Your task to perform on an android device: Show me recent news Image 0: 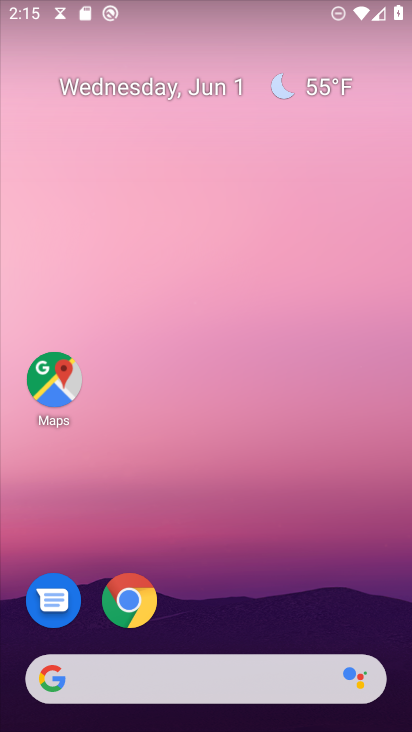
Step 0: click (282, 677)
Your task to perform on an android device: Show me recent news Image 1: 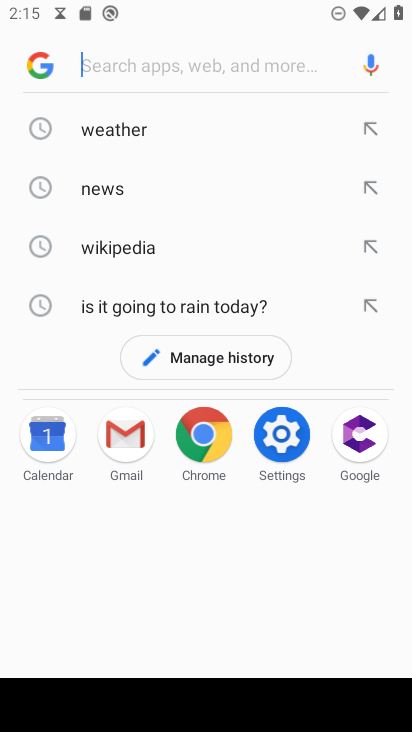
Step 1: type "recent news"
Your task to perform on an android device: Show me recent news Image 2: 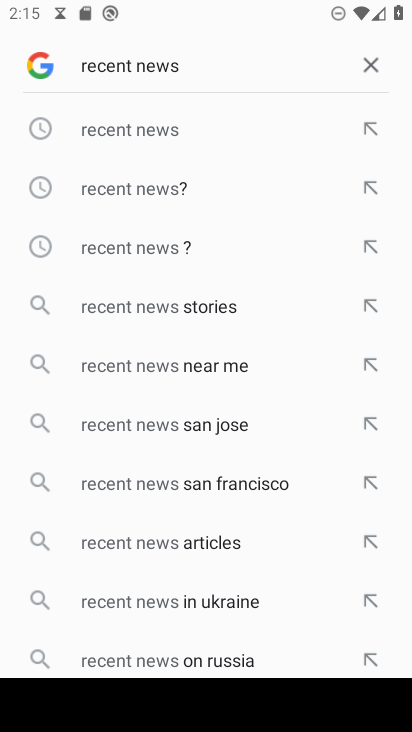
Step 2: click (241, 116)
Your task to perform on an android device: Show me recent news Image 3: 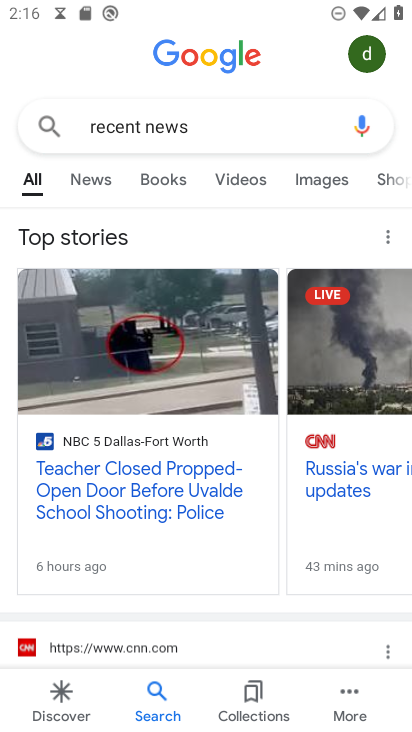
Step 3: task complete